Your task to perform on an android device: Go to accessibility settings Image 0: 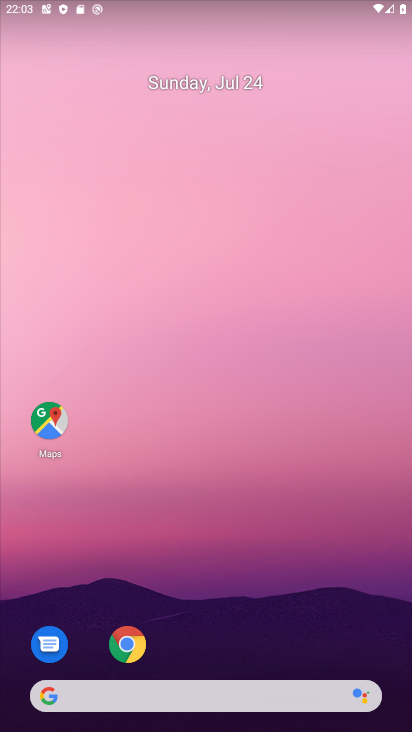
Step 0: drag from (383, 640) to (330, 122)
Your task to perform on an android device: Go to accessibility settings Image 1: 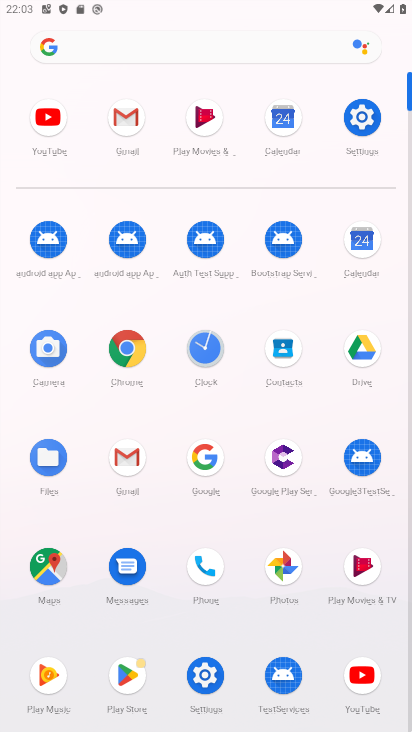
Step 1: click (205, 677)
Your task to perform on an android device: Go to accessibility settings Image 2: 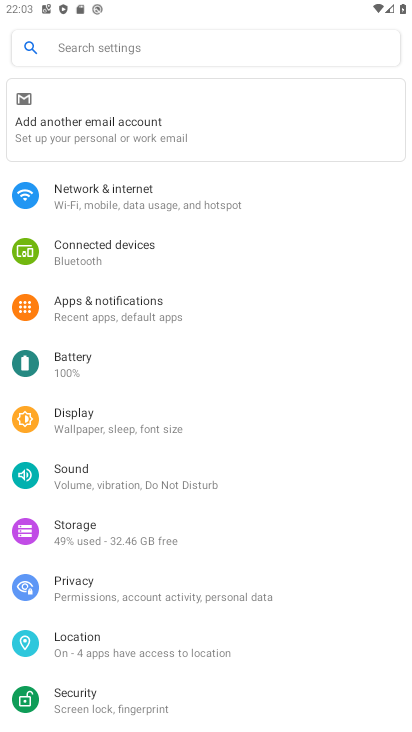
Step 2: drag from (305, 680) to (253, 242)
Your task to perform on an android device: Go to accessibility settings Image 3: 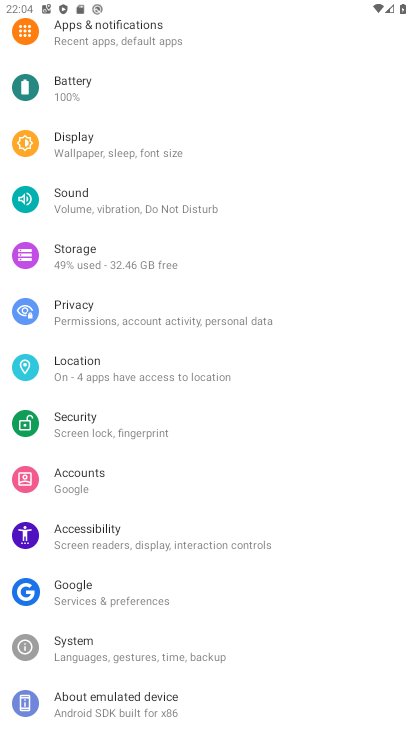
Step 3: click (73, 524)
Your task to perform on an android device: Go to accessibility settings Image 4: 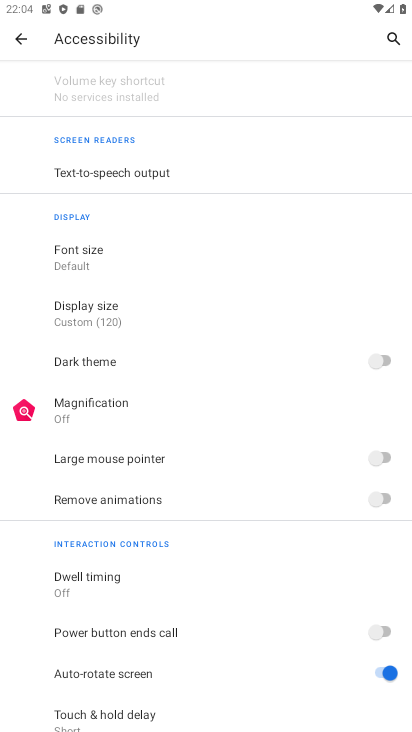
Step 4: task complete